Your task to perform on an android device: Show me popular videos on Youtube Image 0: 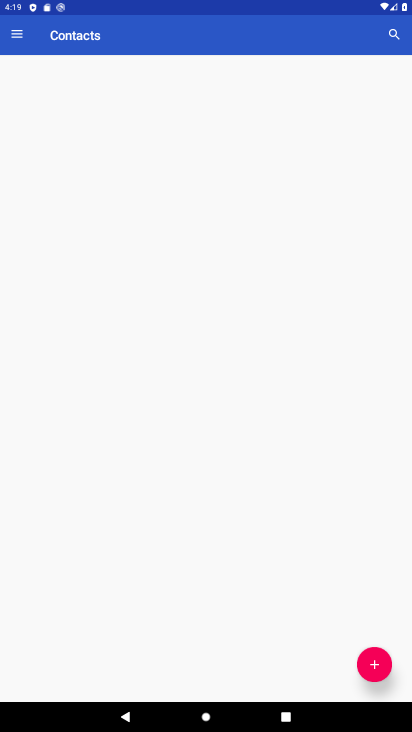
Step 0: click (223, 684)
Your task to perform on an android device: Show me popular videos on Youtube Image 1: 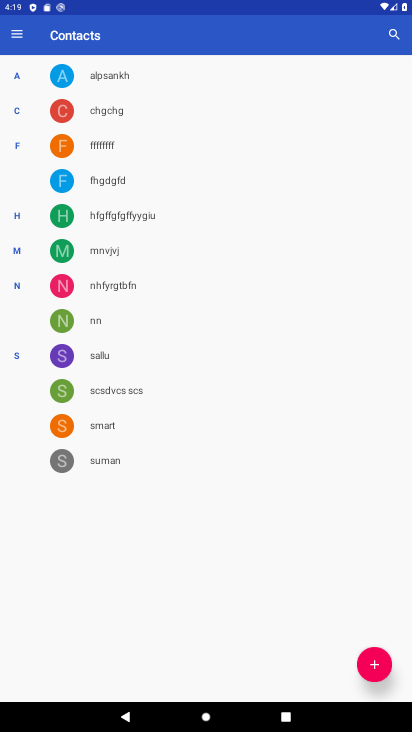
Step 1: press home button
Your task to perform on an android device: Show me popular videos on Youtube Image 2: 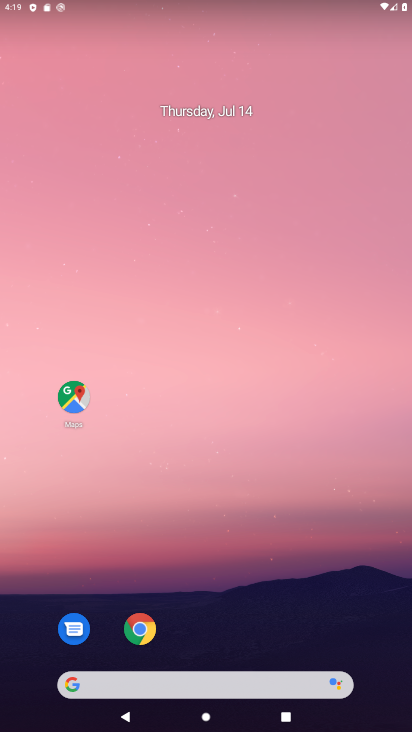
Step 2: drag from (220, 653) to (228, 93)
Your task to perform on an android device: Show me popular videos on Youtube Image 3: 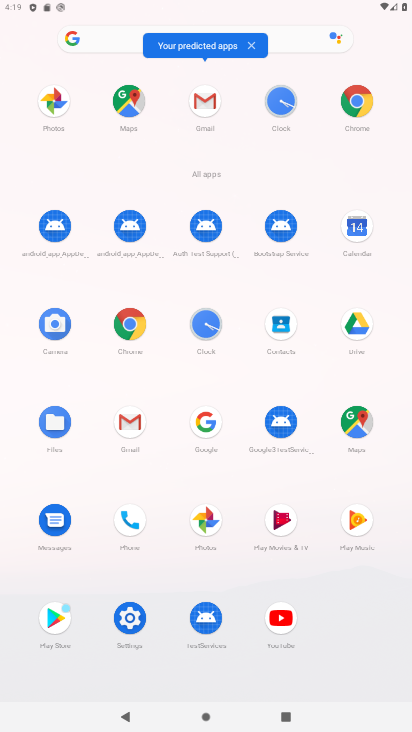
Step 3: click (282, 626)
Your task to perform on an android device: Show me popular videos on Youtube Image 4: 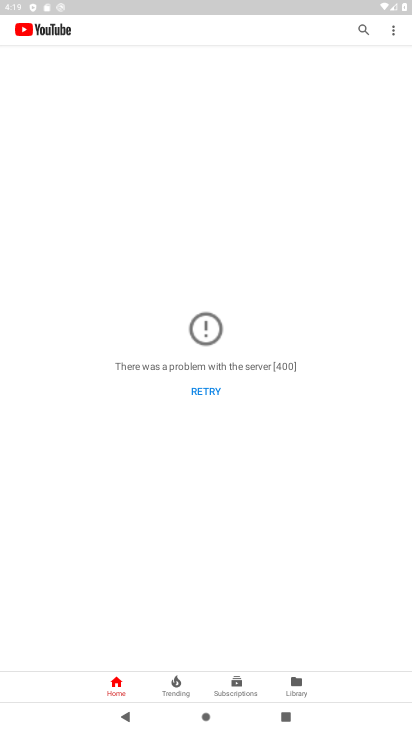
Step 4: click (301, 695)
Your task to perform on an android device: Show me popular videos on Youtube Image 5: 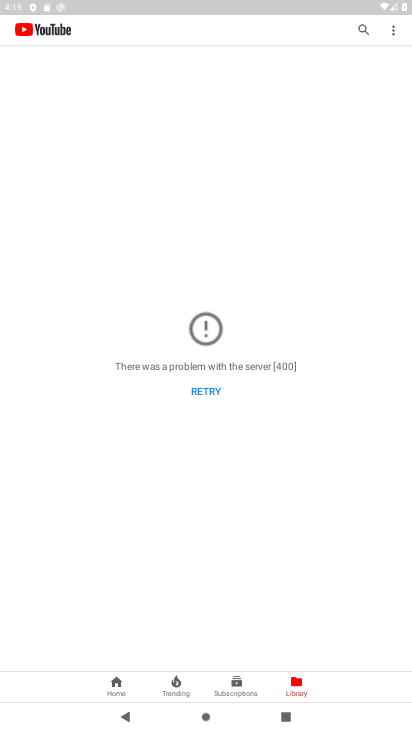
Step 5: task complete